Your task to perform on an android device: Open Google Chrome and click the shortcut for Amazon.com Image 0: 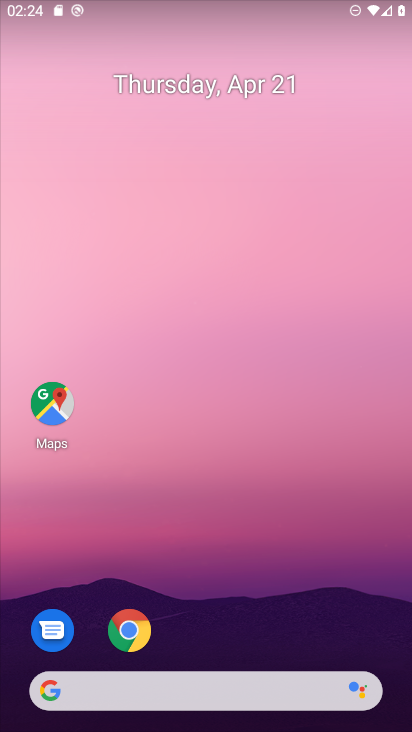
Step 0: click (143, 632)
Your task to perform on an android device: Open Google Chrome and click the shortcut for Amazon.com Image 1: 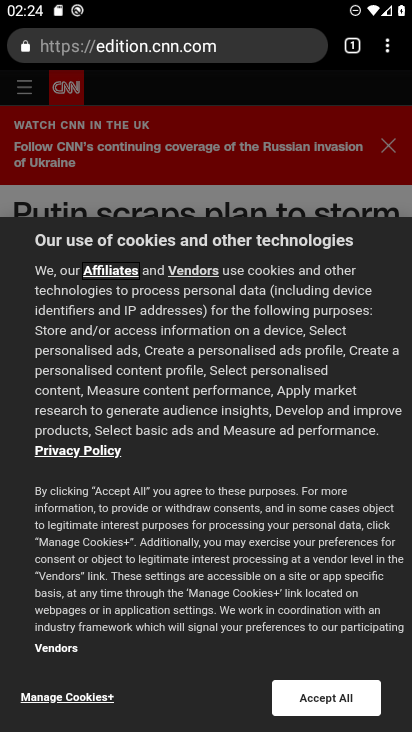
Step 1: click (350, 54)
Your task to perform on an android device: Open Google Chrome and click the shortcut for Amazon.com Image 2: 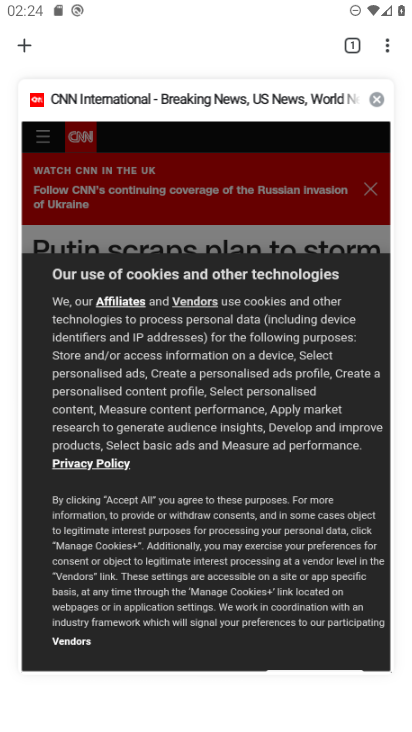
Step 2: click (31, 40)
Your task to perform on an android device: Open Google Chrome and click the shortcut for Amazon.com Image 3: 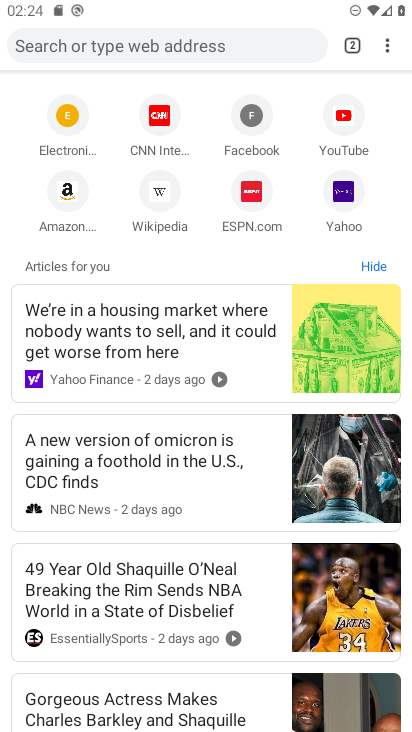
Step 3: click (57, 187)
Your task to perform on an android device: Open Google Chrome and click the shortcut for Amazon.com Image 4: 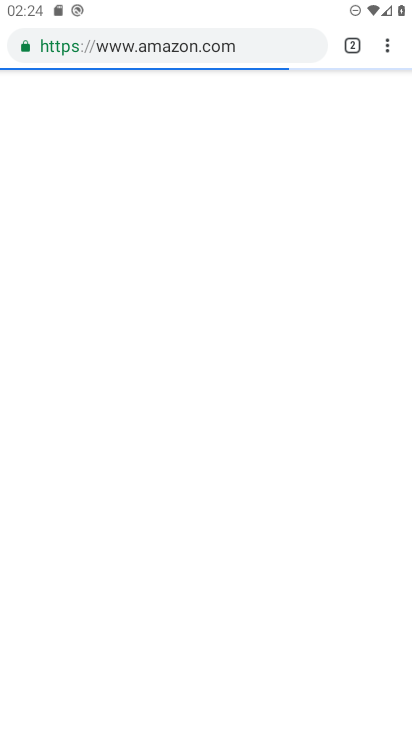
Step 4: task complete